Your task to perform on an android device: turn on the 24-hour format for clock Image 0: 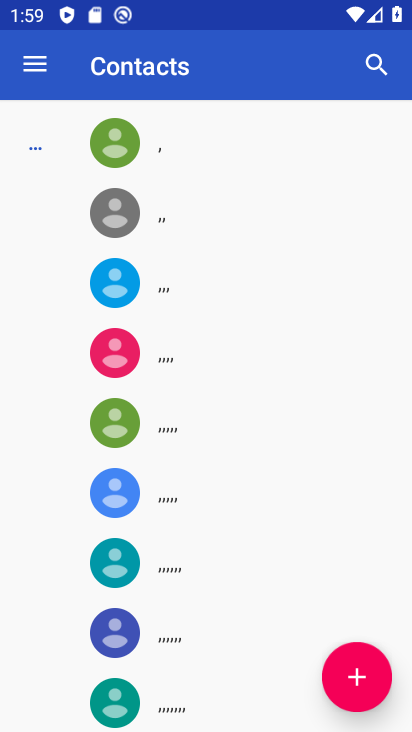
Step 0: press home button
Your task to perform on an android device: turn on the 24-hour format for clock Image 1: 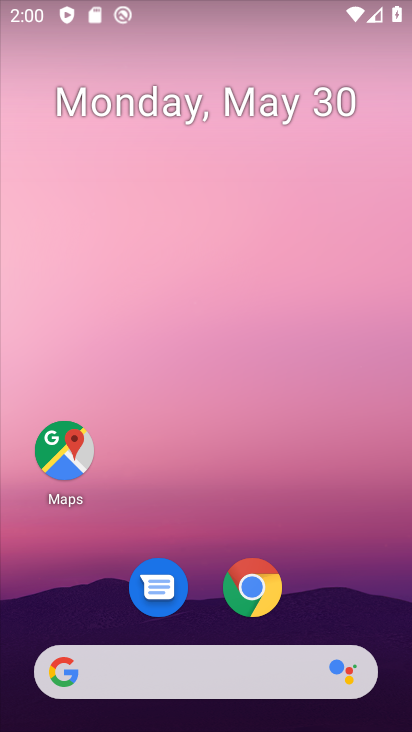
Step 1: drag from (163, 723) to (218, 31)
Your task to perform on an android device: turn on the 24-hour format for clock Image 2: 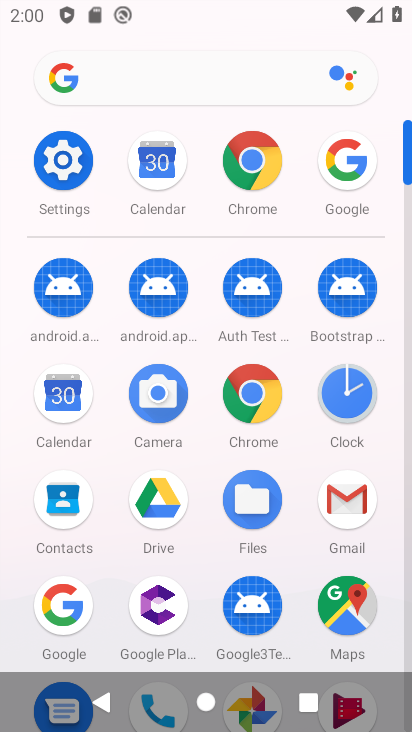
Step 2: click (66, 149)
Your task to perform on an android device: turn on the 24-hour format for clock Image 3: 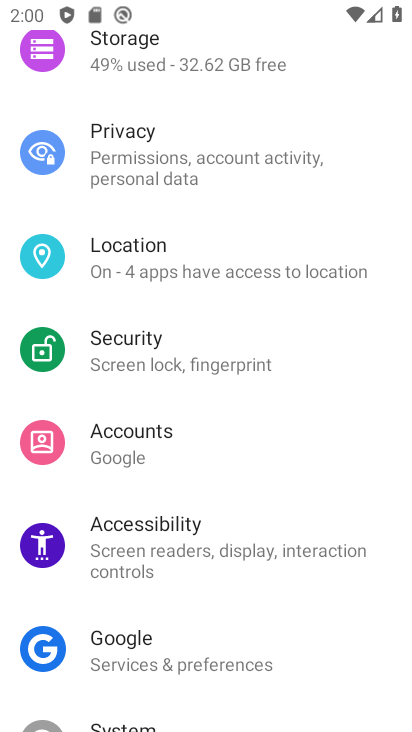
Step 3: drag from (212, 684) to (260, 210)
Your task to perform on an android device: turn on the 24-hour format for clock Image 4: 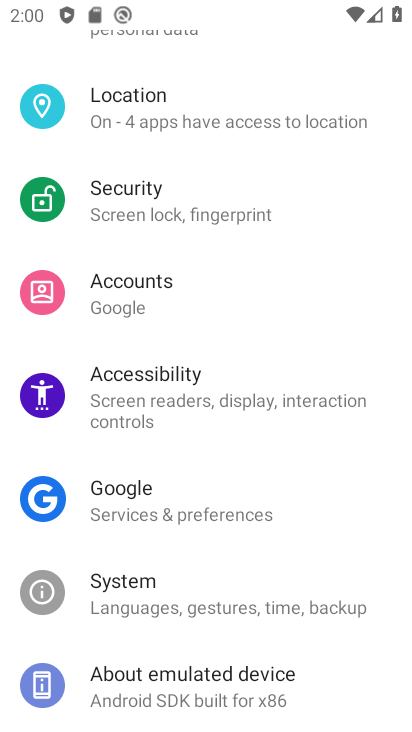
Step 4: click (199, 610)
Your task to perform on an android device: turn on the 24-hour format for clock Image 5: 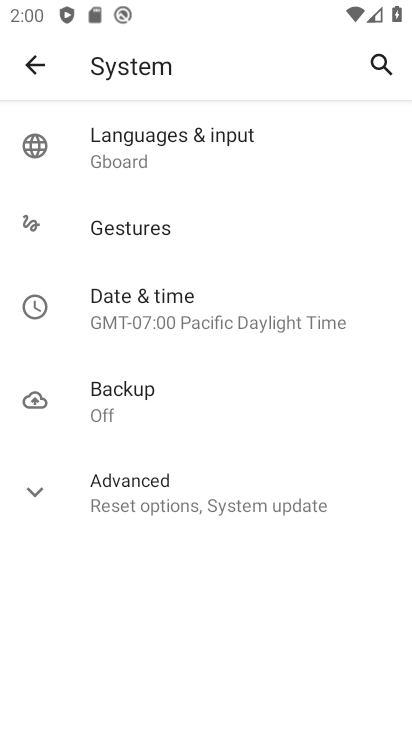
Step 5: click (208, 330)
Your task to perform on an android device: turn on the 24-hour format for clock Image 6: 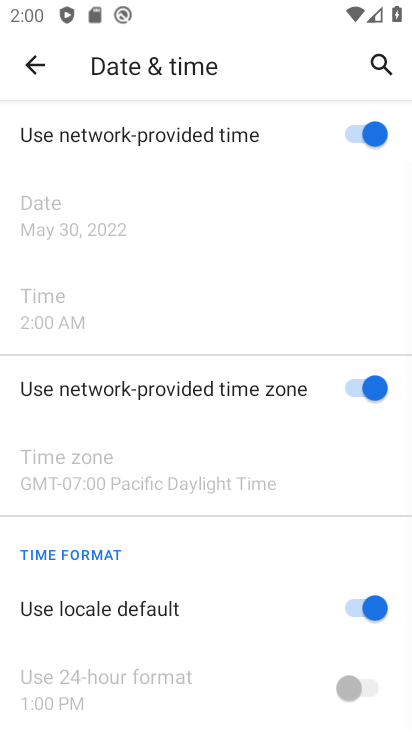
Step 6: drag from (210, 605) to (250, 197)
Your task to perform on an android device: turn on the 24-hour format for clock Image 7: 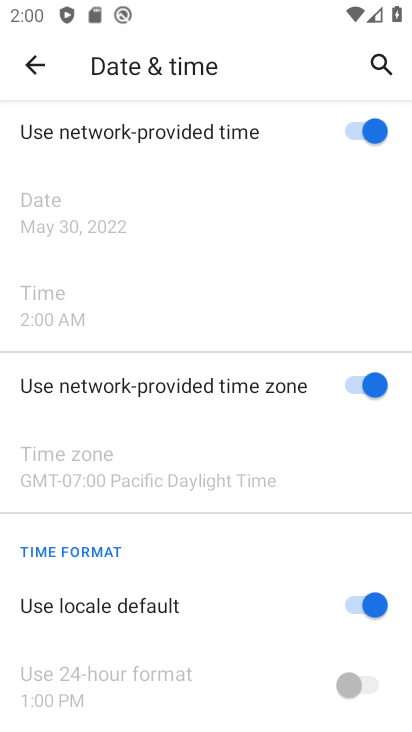
Step 7: click (369, 601)
Your task to perform on an android device: turn on the 24-hour format for clock Image 8: 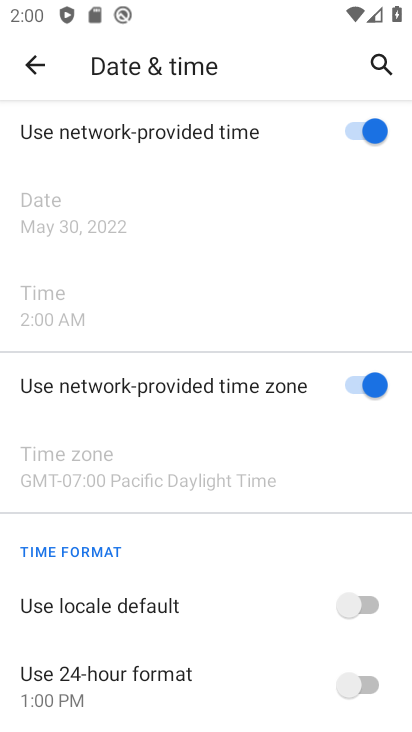
Step 8: click (363, 691)
Your task to perform on an android device: turn on the 24-hour format for clock Image 9: 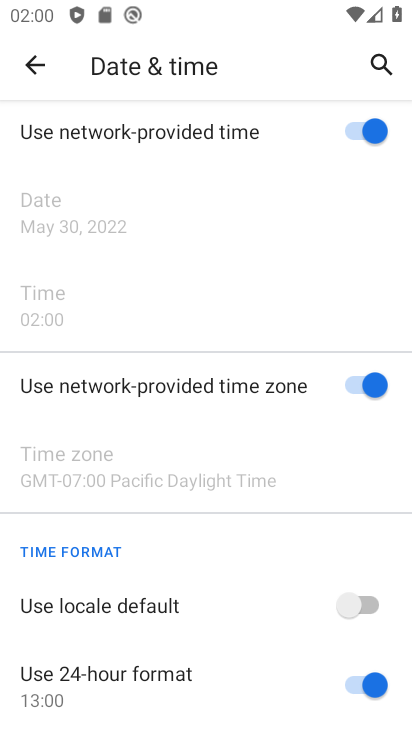
Step 9: task complete